Your task to perform on an android device: Do I have any events tomorrow? Image 0: 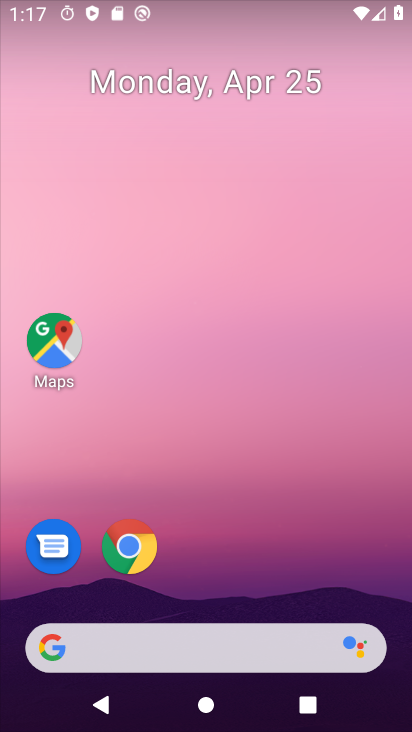
Step 0: drag from (201, 607) to (127, 2)
Your task to perform on an android device: Do I have any events tomorrow? Image 1: 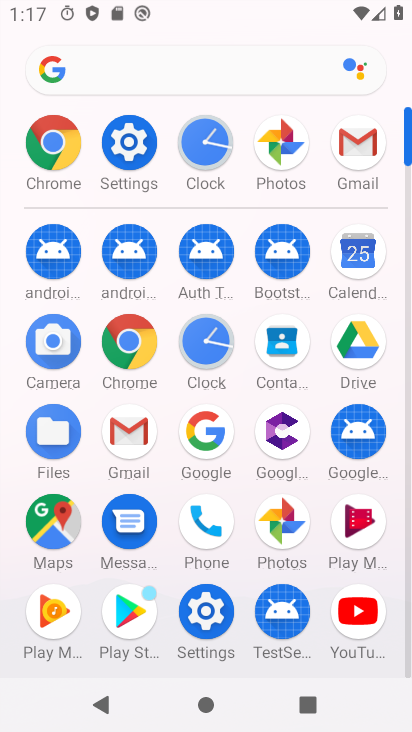
Step 1: click (353, 262)
Your task to perform on an android device: Do I have any events tomorrow? Image 2: 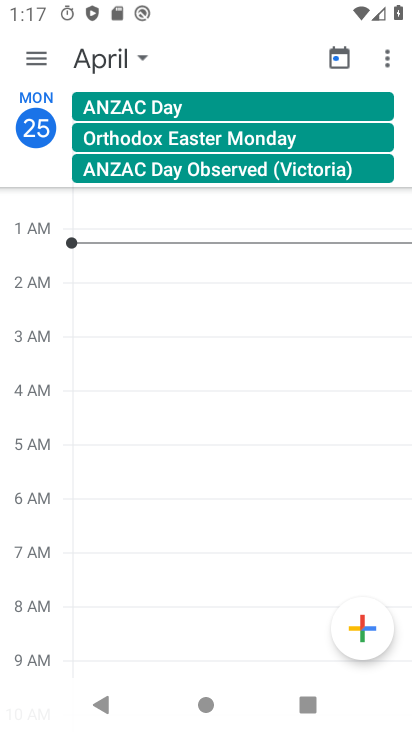
Step 2: click (32, 58)
Your task to perform on an android device: Do I have any events tomorrow? Image 3: 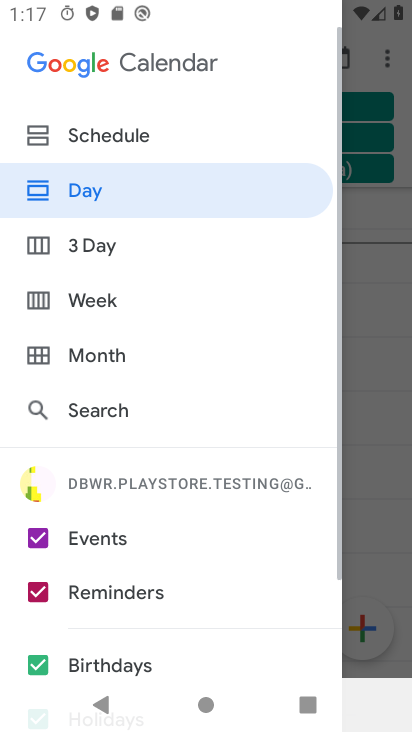
Step 3: click (113, 237)
Your task to perform on an android device: Do I have any events tomorrow? Image 4: 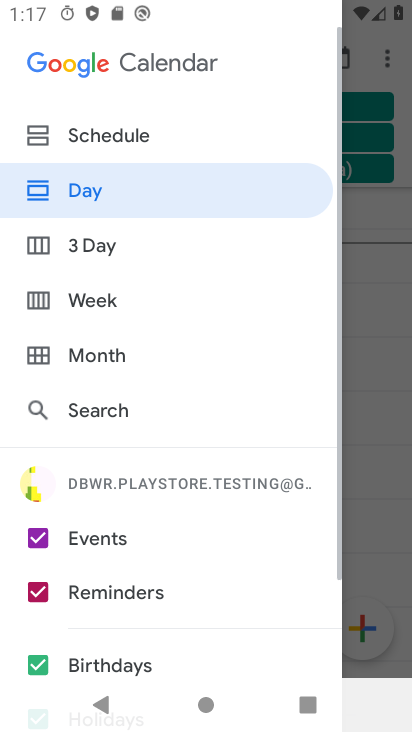
Step 4: click (82, 241)
Your task to perform on an android device: Do I have any events tomorrow? Image 5: 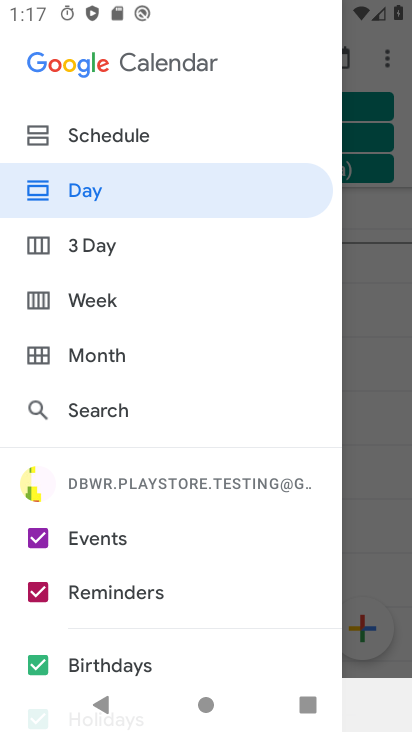
Step 5: click (124, 232)
Your task to perform on an android device: Do I have any events tomorrow? Image 6: 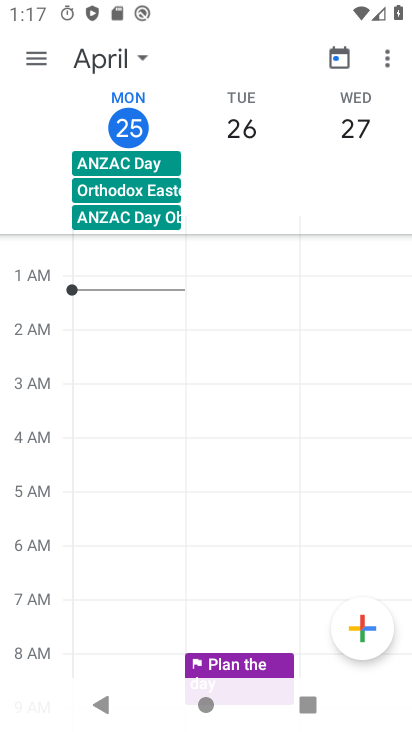
Step 6: click (231, 122)
Your task to perform on an android device: Do I have any events tomorrow? Image 7: 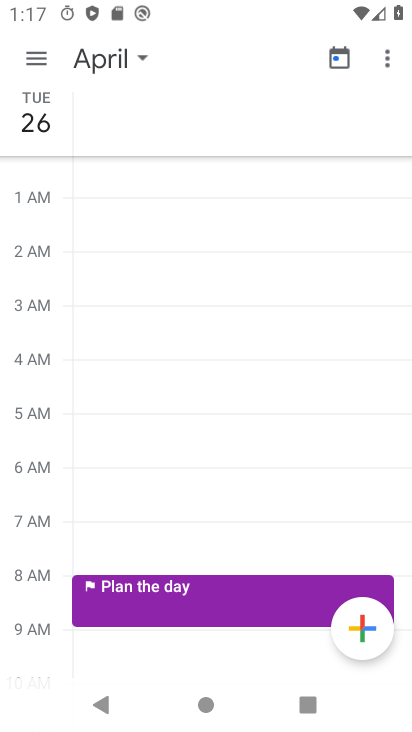
Step 7: task complete